Your task to perform on an android device: turn off location history Image 0: 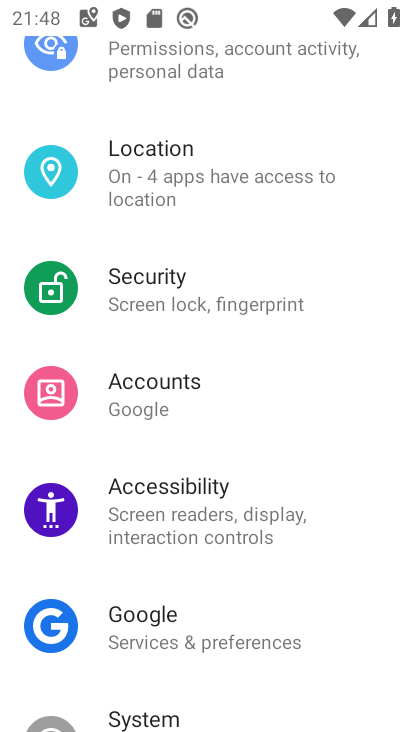
Step 0: press home button
Your task to perform on an android device: turn off location history Image 1: 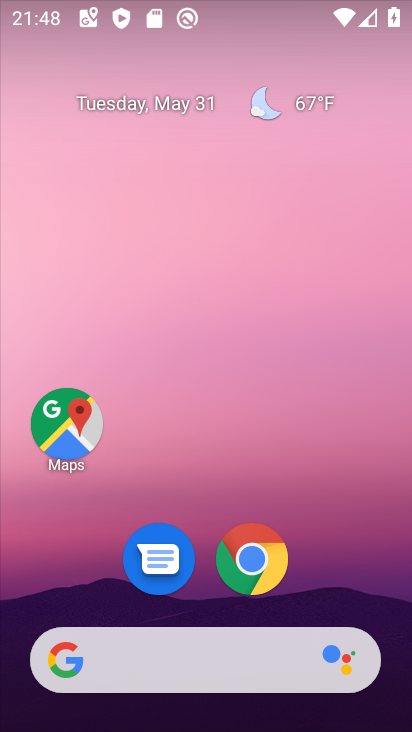
Step 1: drag from (343, 600) to (341, 59)
Your task to perform on an android device: turn off location history Image 2: 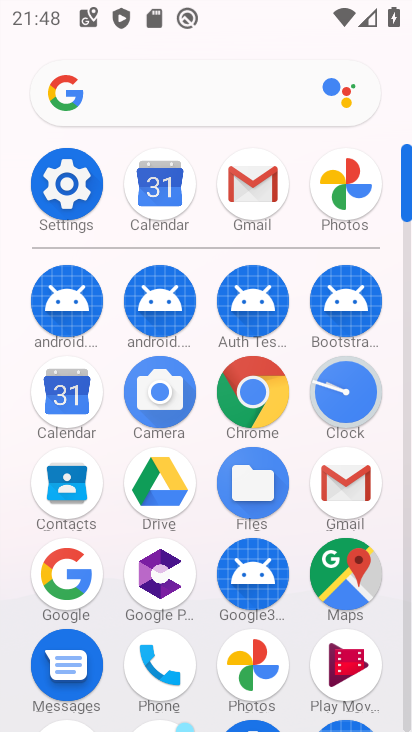
Step 2: click (64, 175)
Your task to perform on an android device: turn off location history Image 3: 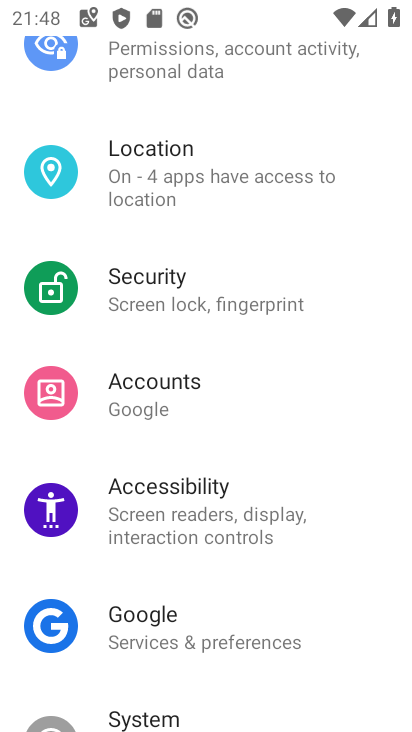
Step 3: click (156, 189)
Your task to perform on an android device: turn off location history Image 4: 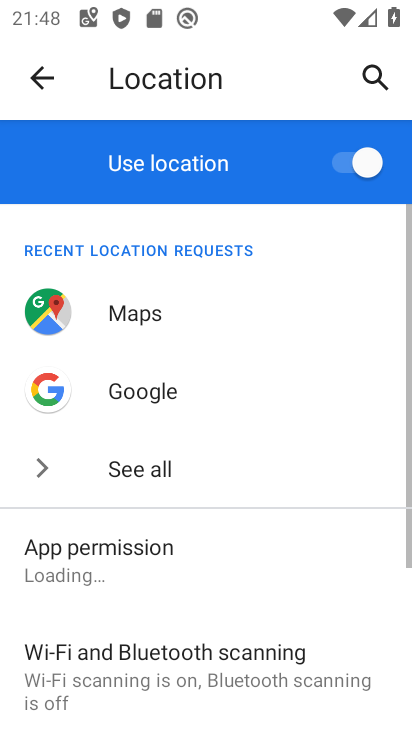
Step 4: drag from (183, 663) to (214, 134)
Your task to perform on an android device: turn off location history Image 5: 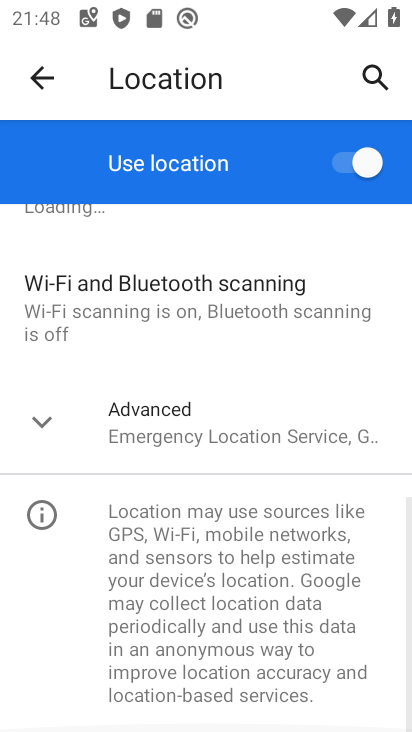
Step 5: click (148, 426)
Your task to perform on an android device: turn off location history Image 6: 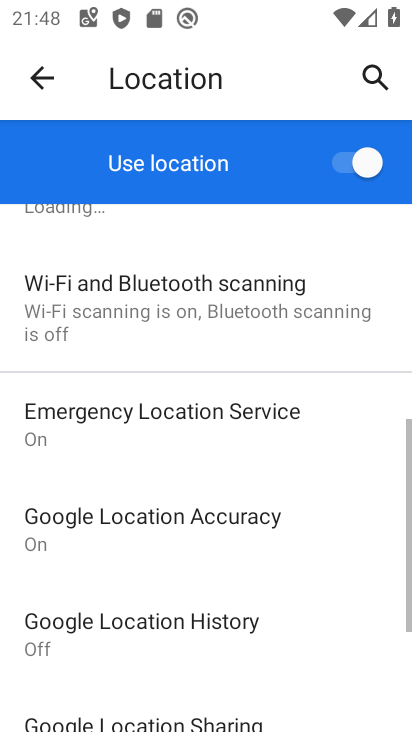
Step 6: click (180, 633)
Your task to perform on an android device: turn off location history Image 7: 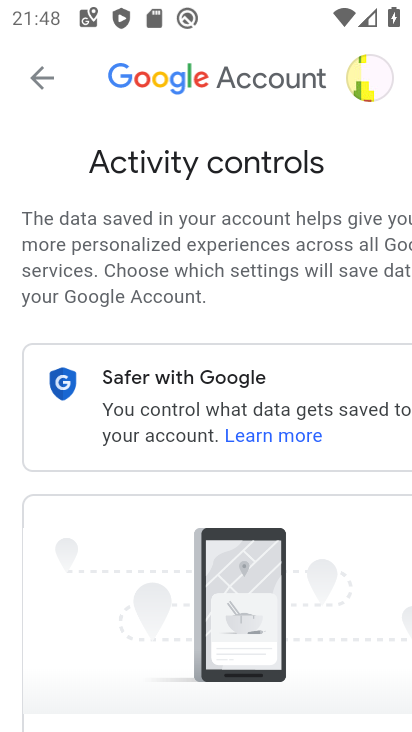
Step 7: task complete